Your task to perform on an android device: open a bookmark in the chrome app Image 0: 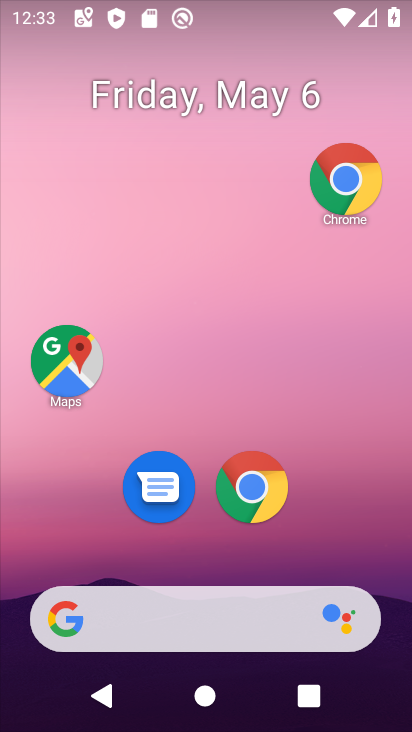
Step 0: click (246, 493)
Your task to perform on an android device: open a bookmark in the chrome app Image 1: 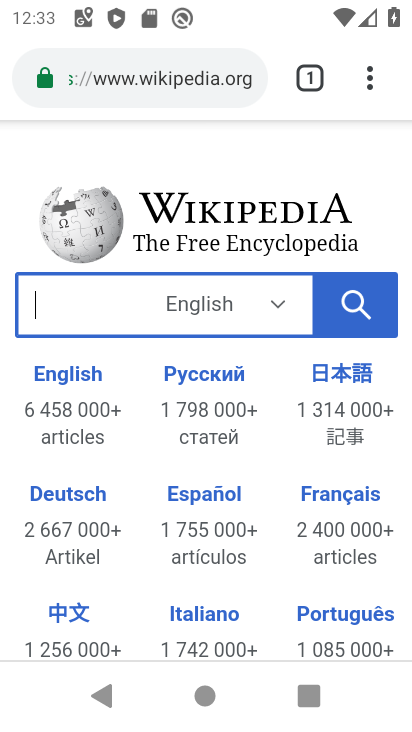
Step 1: click (372, 94)
Your task to perform on an android device: open a bookmark in the chrome app Image 2: 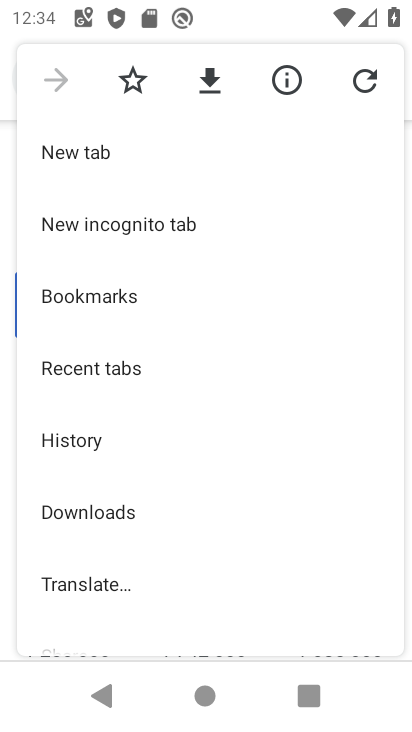
Step 2: drag from (166, 475) to (192, 360)
Your task to perform on an android device: open a bookmark in the chrome app Image 3: 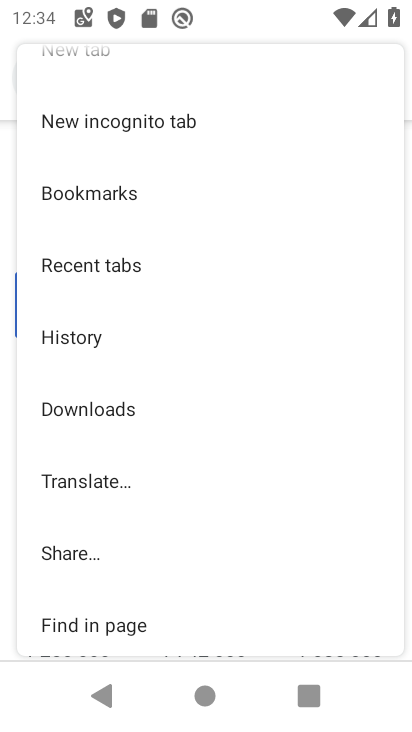
Step 3: drag from (144, 569) to (170, 416)
Your task to perform on an android device: open a bookmark in the chrome app Image 4: 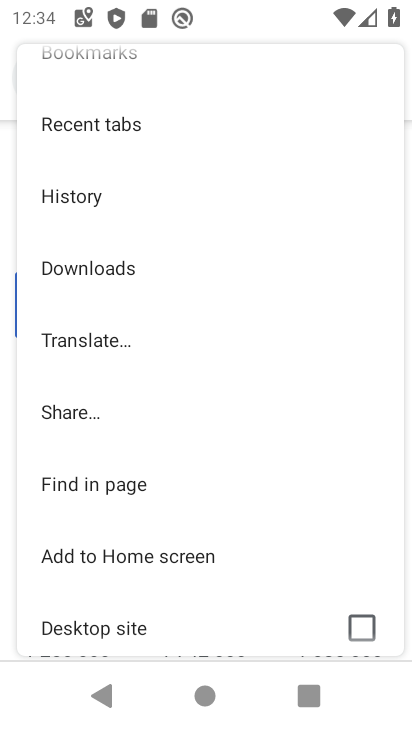
Step 4: drag from (125, 567) to (151, 419)
Your task to perform on an android device: open a bookmark in the chrome app Image 5: 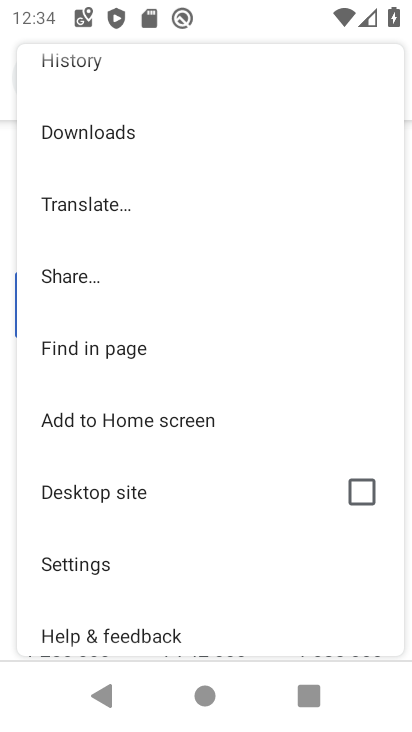
Step 5: click (148, 555)
Your task to perform on an android device: open a bookmark in the chrome app Image 6: 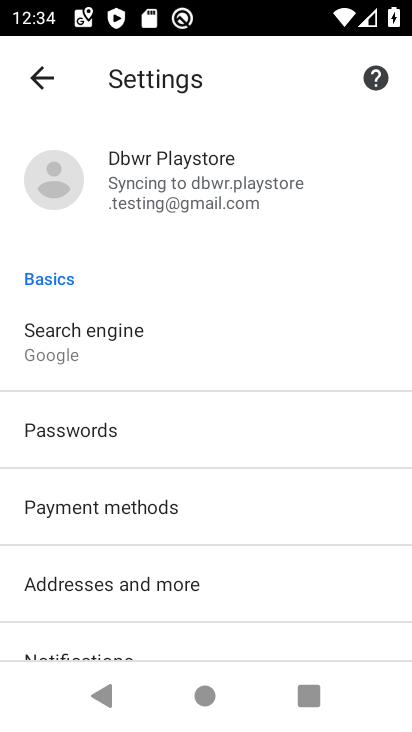
Step 6: task complete